Your task to perform on an android device: Go to Yahoo.com Image 0: 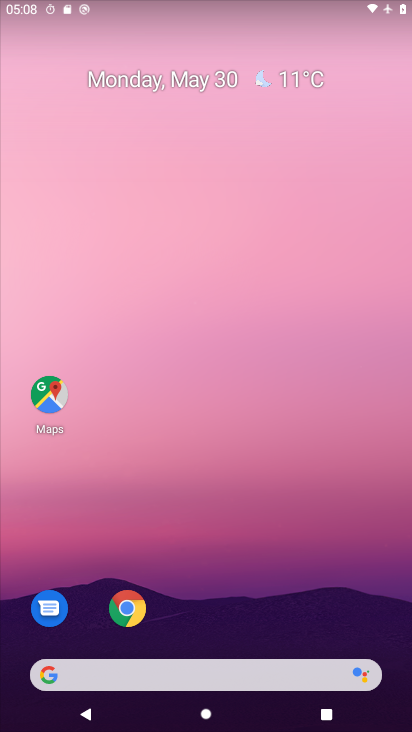
Step 0: click (134, 618)
Your task to perform on an android device: Go to Yahoo.com Image 1: 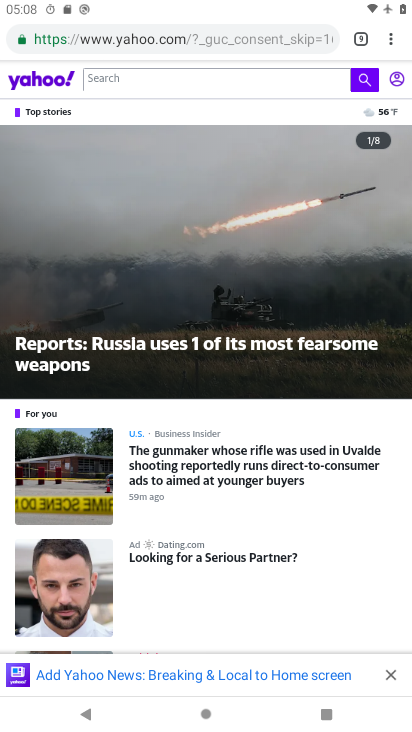
Step 1: task complete